Your task to perform on an android device: Open wifi settings Image 0: 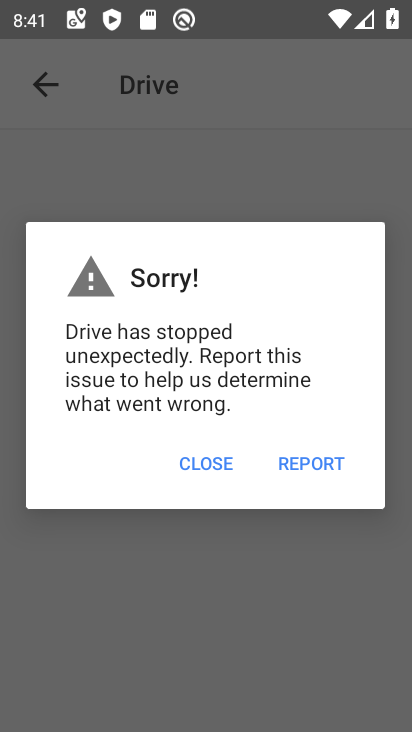
Step 0: press home button
Your task to perform on an android device: Open wifi settings Image 1: 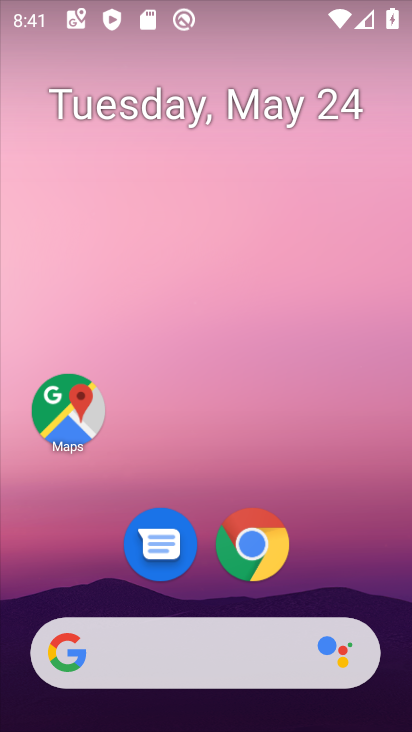
Step 1: drag from (387, 584) to (295, 175)
Your task to perform on an android device: Open wifi settings Image 2: 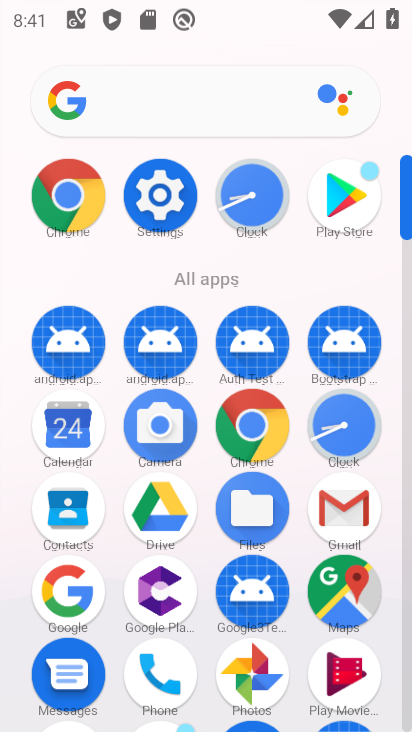
Step 2: click (160, 197)
Your task to perform on an android device: Open wifi settings Image 3: 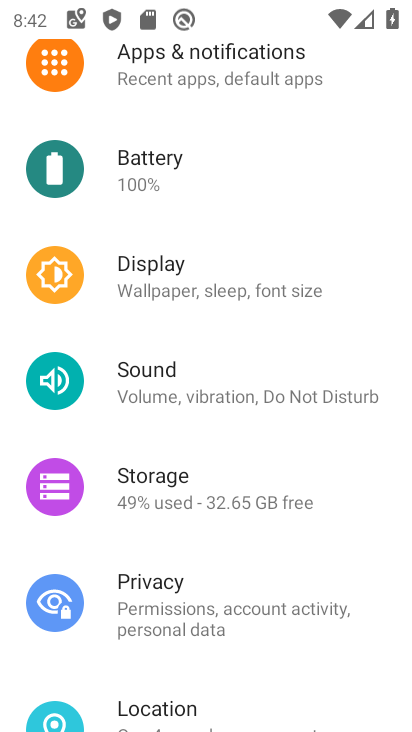
Step 3: drag from (219, 107) to (213, 518)
Your task to perform on an android device: Open wifi settings Image 4: 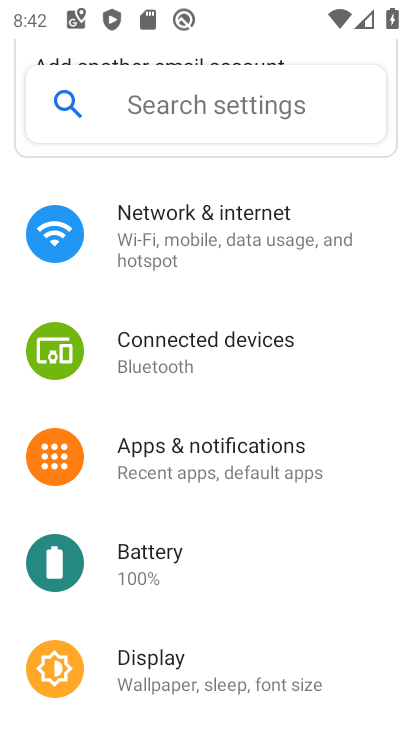
Step 4: click (213, 518)
Your task to perform on an android device: Open wifi settings Image 5: 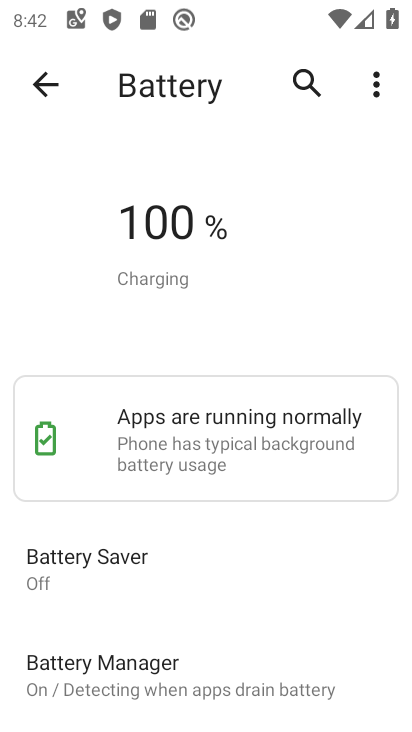
Step 5: press back button
Your task to perform on an android device: Open wifi settings Image 6: 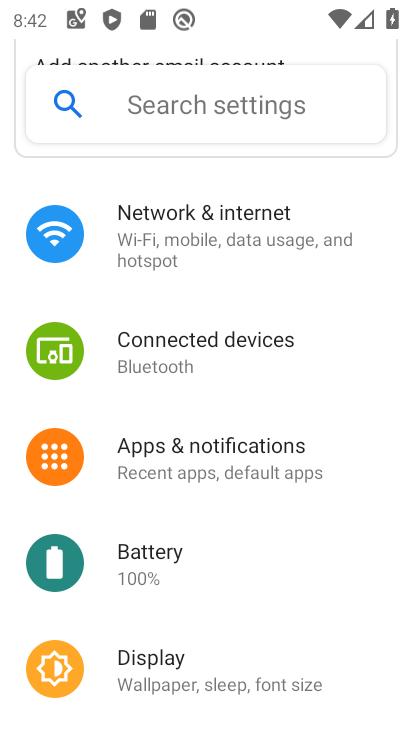
Step 6: click (232, 252)
Your task to perform on an android device: Open wifi settings Image 7: 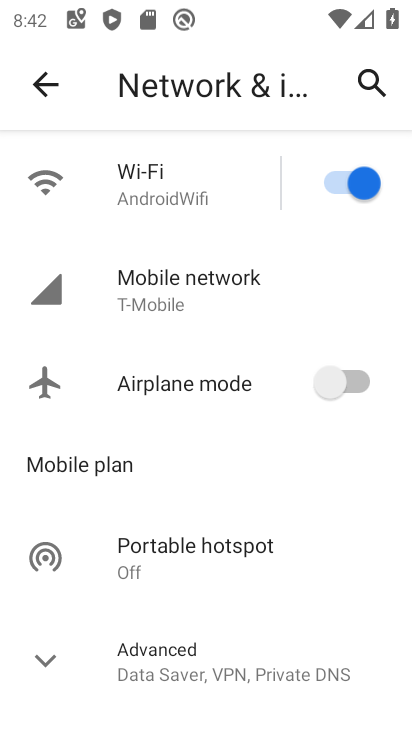
Step 7: click (165, 199)
Your task to perform on an android device: Open wifi settings Image 8: 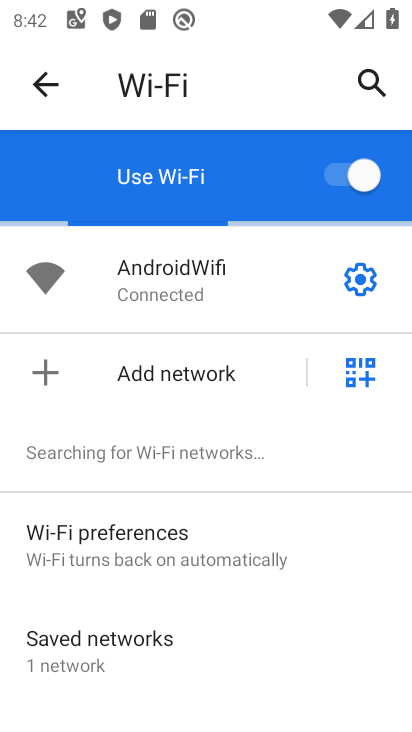
Step 8: task complete